Your task to perform on an android device: turn smart compose on in the gmail app Image 0: 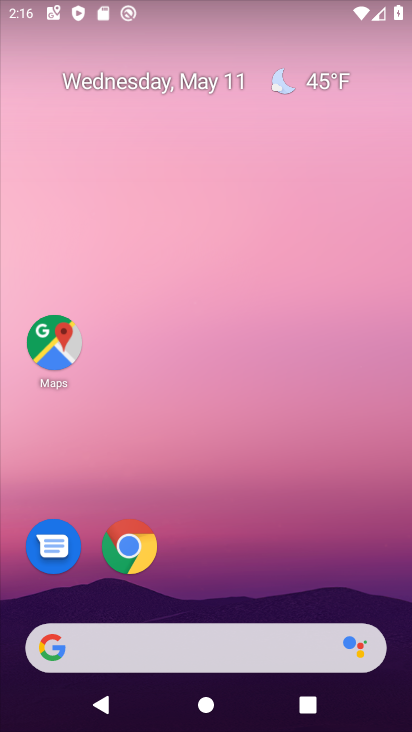
Step 0: drag from (203, 611) to (326, 10)
Your task to perform on an android device: turn smart compose on in the gmail app Image 1: 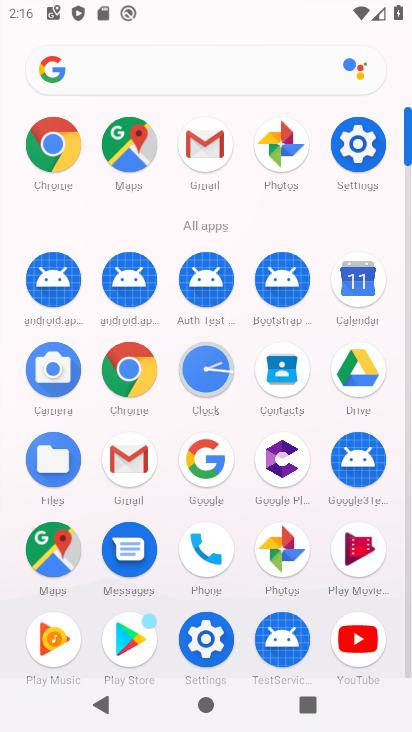
Step 1: click (131, 457)
Your task to perform on an android device: turn smart compose on in the gmail app Image 2: 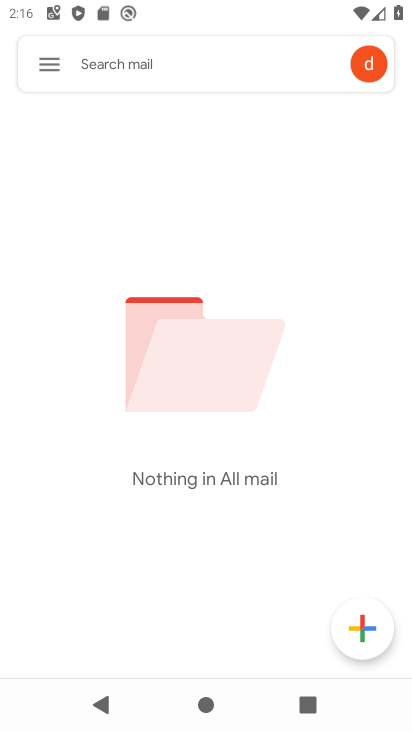
Step 2: click (52, 76)
Your task to perform on an android device: turn smart compose on in the gmail app Image 3: 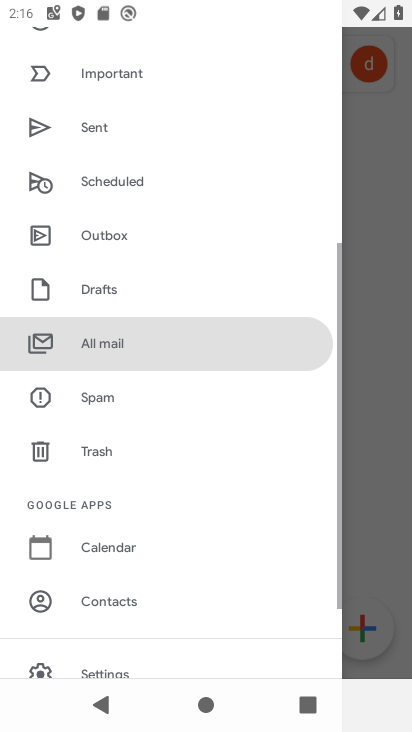
Step 3: drag from (124, 589) to (201, 157)
Your task to perform on an android device: turn smart compose on in the gmail app Image 4: 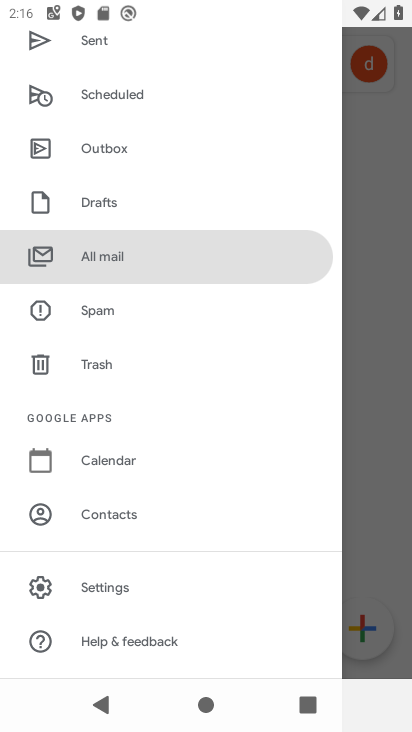
Step 4: click (95, 595)
Your task to perform on an android device: turn smart compose on in the gmail app Image 5: 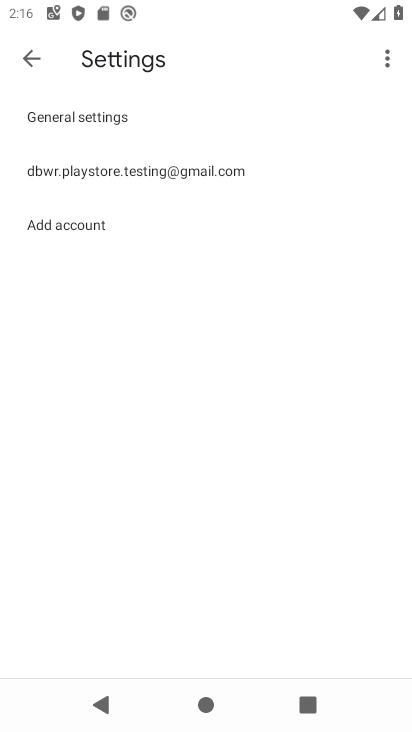
Step 5: click (120, 174)
Your task to perform on an android device: turn smart compose on in the gmail app Image 6: 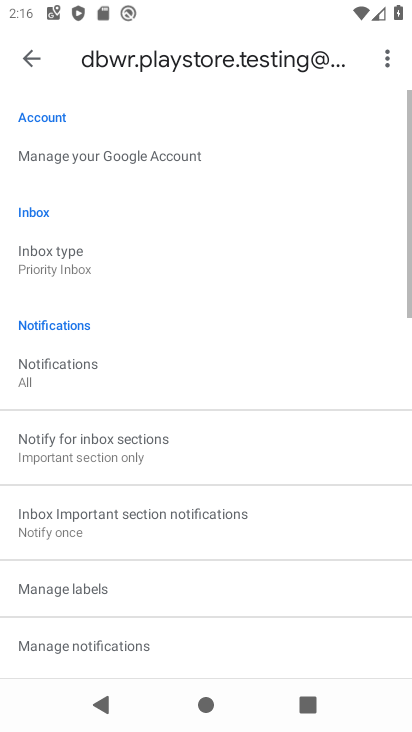
Step 6: task complete